Your task to perform on an android device: Open the calendar and show me this week's events? Image 0: 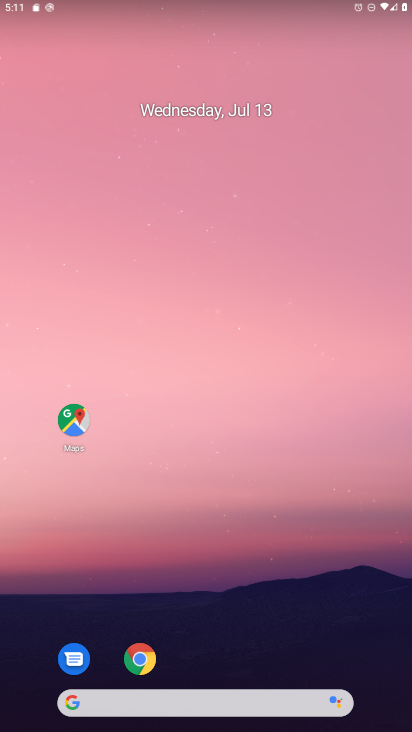
Step 0: drag from (273, 574) to (248, 63)
Your task to perform on an android device: Open the calendar and show me this week's events? Image 1: 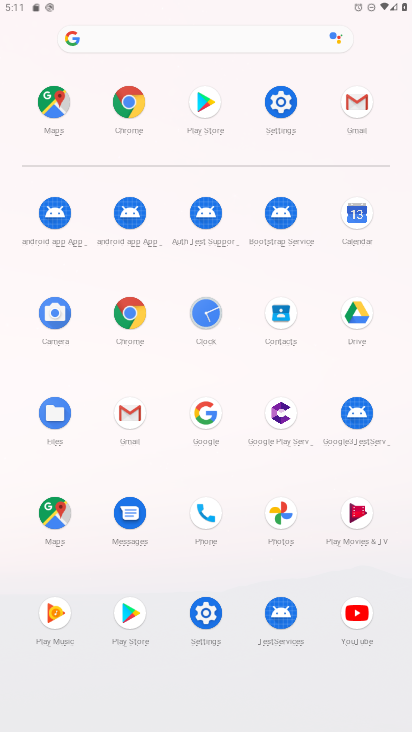
Step 1: click (357, 205)
Your task to perform on an android device: Open the calendar and show me this week's events? Image 2: 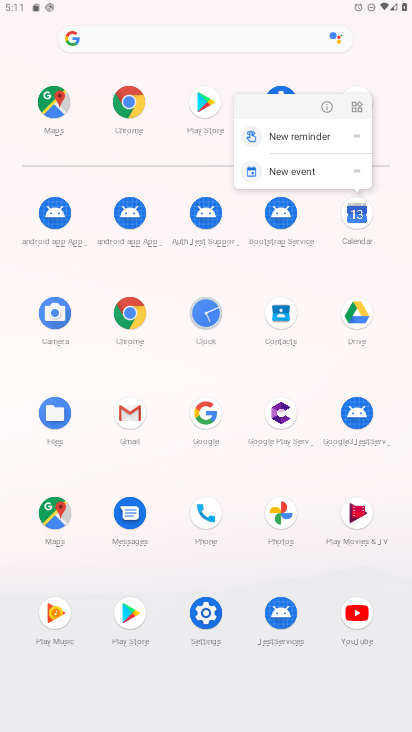
Step 2: click (355, 211)
Your task to perform on an android device: Open the calendar and show me this week's events? Image 3: 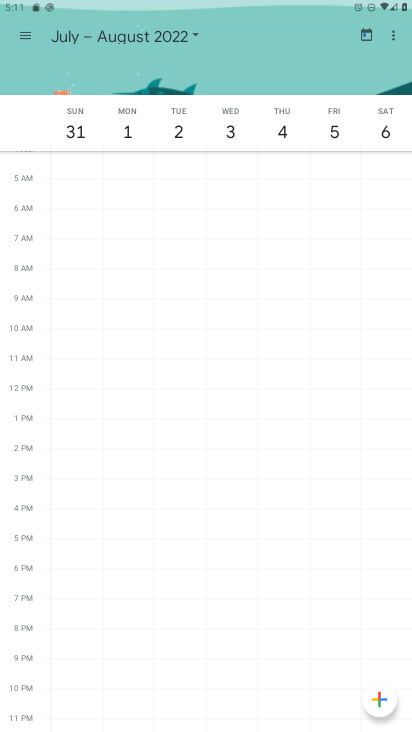
Step 3: click (130, 42)
Your task to perform on an android device: Open the calendar and show me this week's events? Image 4: 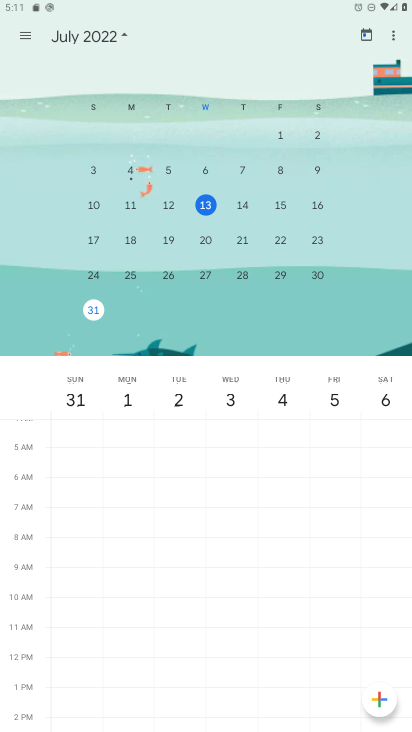
Step 4: click (122, 201)
Your task to perform on an android device: Open the calendar and show me this week's events? Image 5: 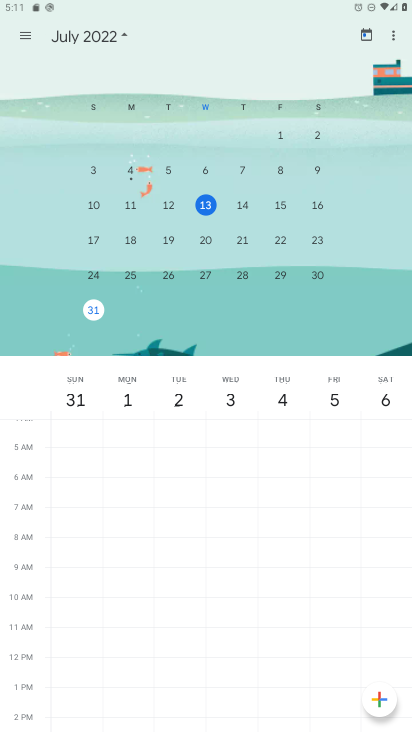
Step 5: click (202, 203)
Your task to perform on an android device: Open the calendar and show me this week's events? Image 6: 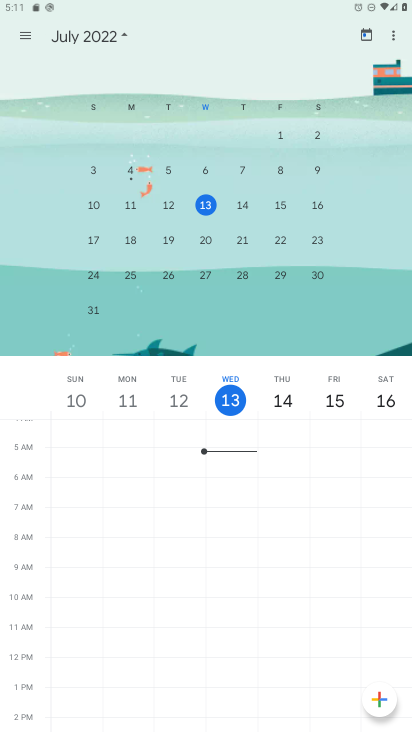
Step 6: task complete